Your task to perform on an android device: change the upload size in google photos Image 0: 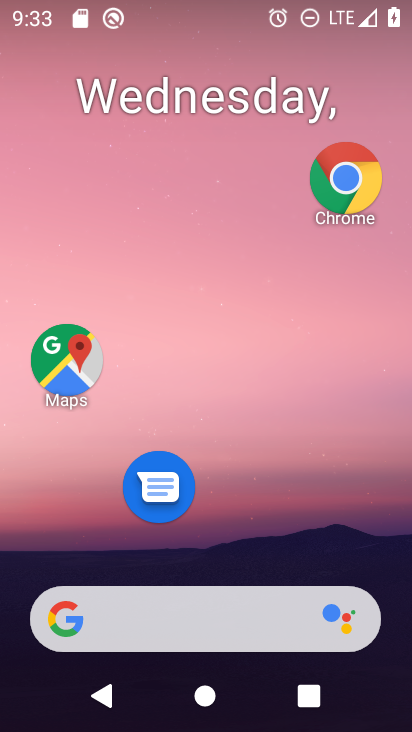
Step 0: drag from (273, 598) to (280, 100)
Your task to perform on an android device: change the upload size in google photos Image 1: 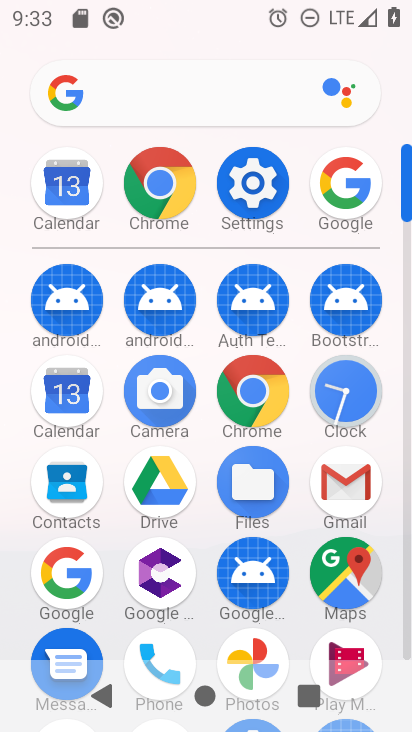
Step 1: click (260, 643)
Your task to perform on an android device: change the upload size in google photos Image 2: 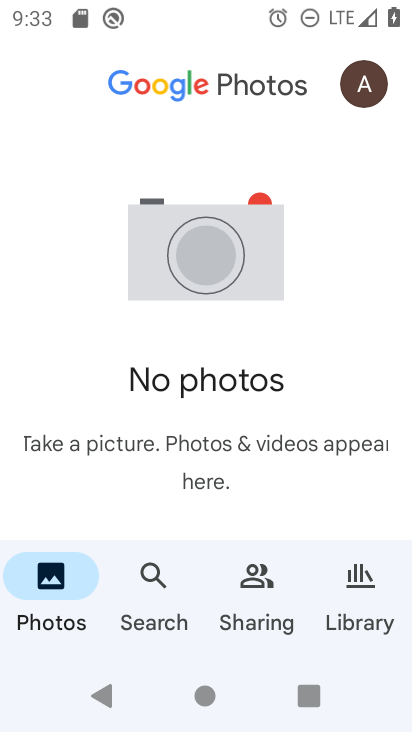
Step 2: click (373, 78)
Your task to perform on an android device: change the upload size in google photos Image 3: 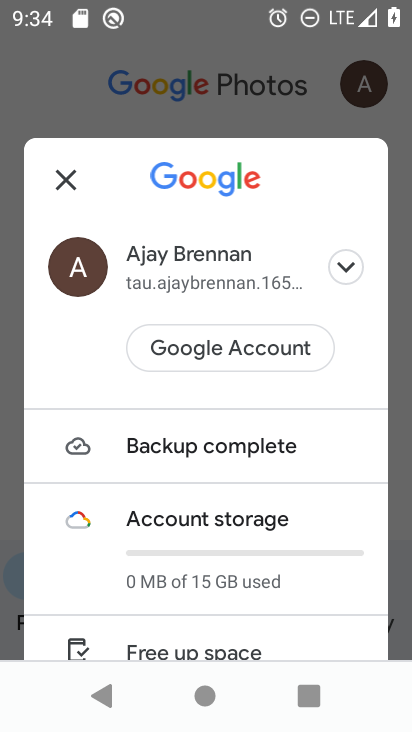
Step 3: drag from (270, 572) to (273, 400)
Your task to perform on an android device: change the upload size in google photos Image 4: 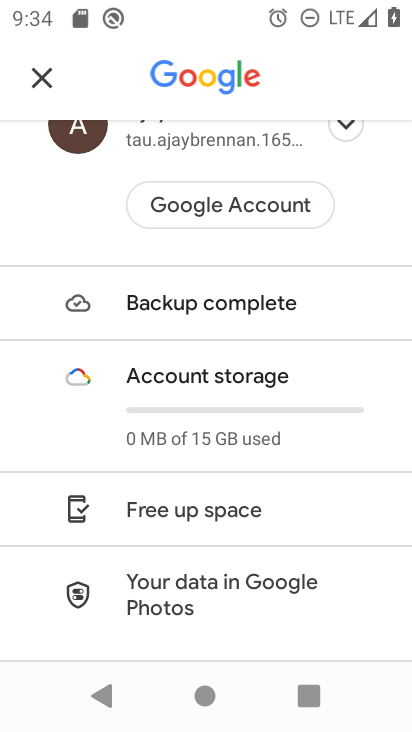
Step 4: drag from (281, 547) to (255, 85)
Your task to perform on an android device: change the upload size in google photos Image 5: 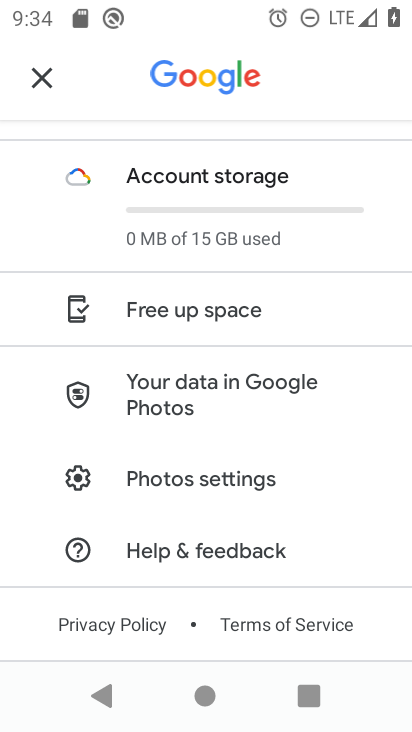
Step 5: click (164, 484)
Your task to perform on an android device: change the upload size in google photos Image 6: 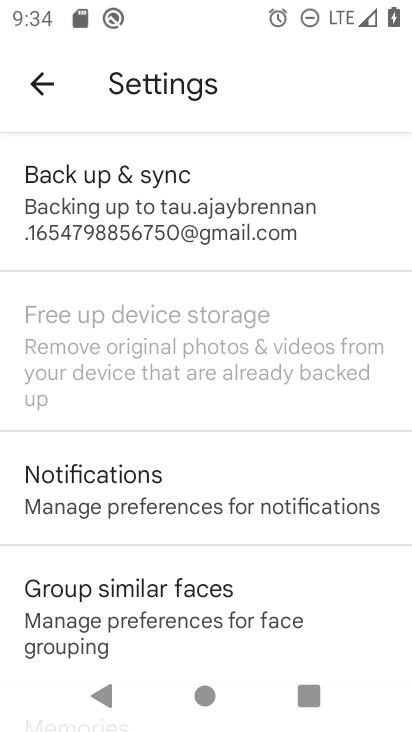
Step 6: click (150, 214)
Your task to perform on an android device: change the upload size in google photos Image 7: 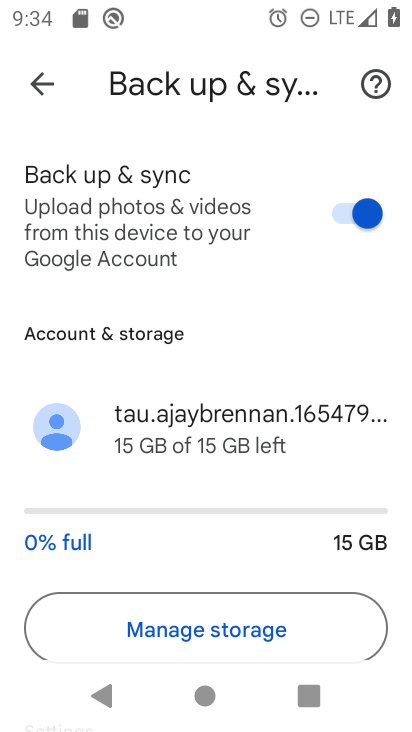
Step 7: drag from (135, 462) to (137, 107)
Your task to perform on an android device: change the upload size in google photos Image 8: 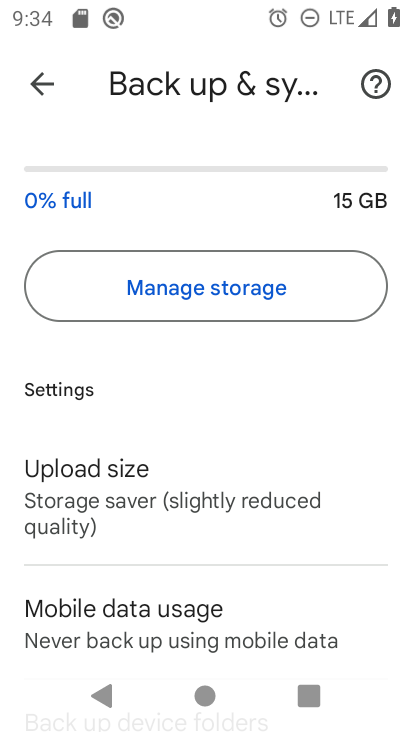
Step 8: click (190, 521)
Your task to perform on an android device: change the upload size in google photos Image 9: 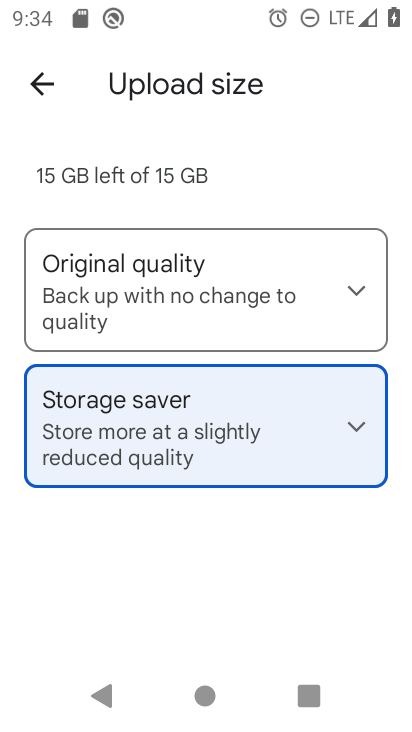
Step 9: click (154, 312)
Your task to perform on an android device: change the upload size in google photos Image 10: 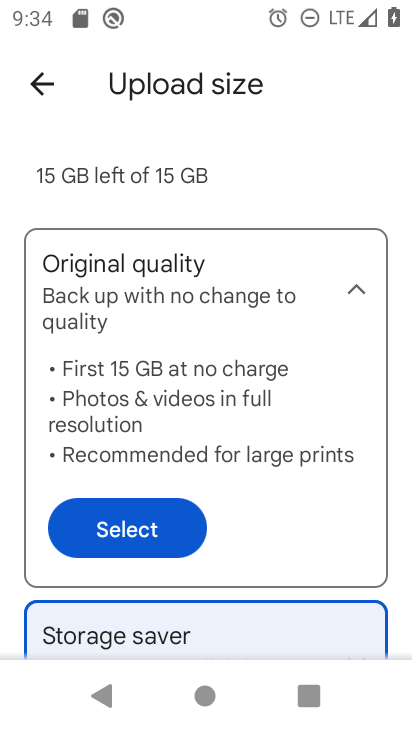
Step 10: click (160, 538)
Your task to perform on an android device: change the upload size in google photos Image 11: 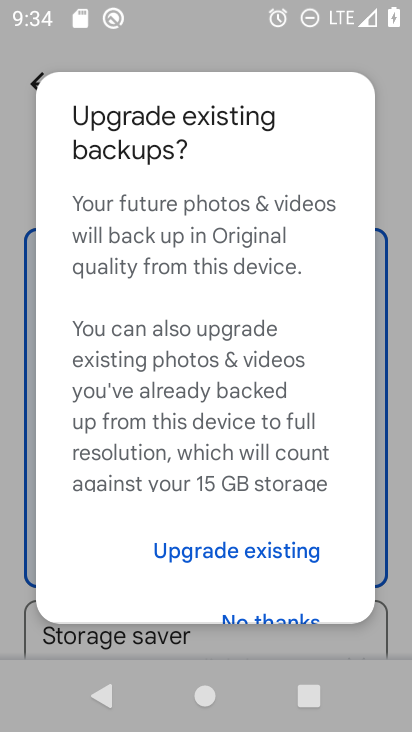
Step 11: task complete